Your task to perform on an android device: toggle sleep mode Image 0: 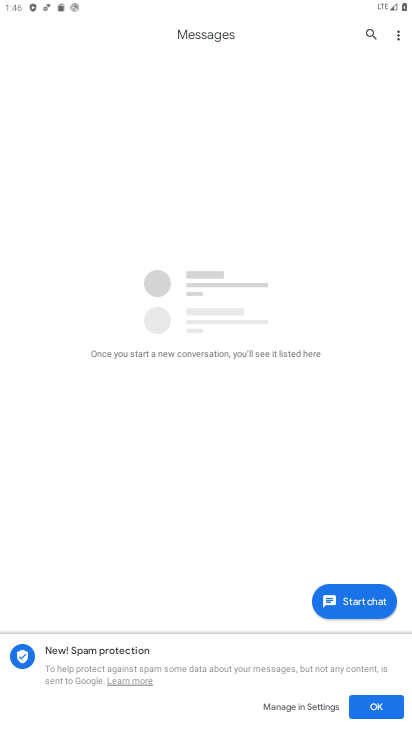
Step 0: press home button
Your task to perform on an android device: toggle sleep mode Image 1: 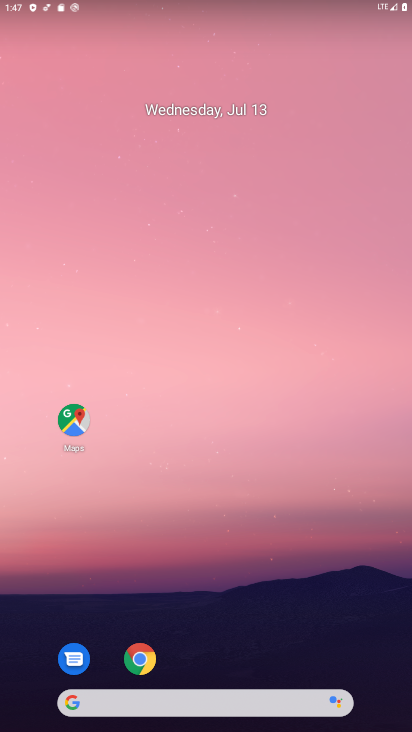
Step 1: drag from (385, 673) to (323, 153)
Your task to perform on an android device: toggle sleep mode Image 2: 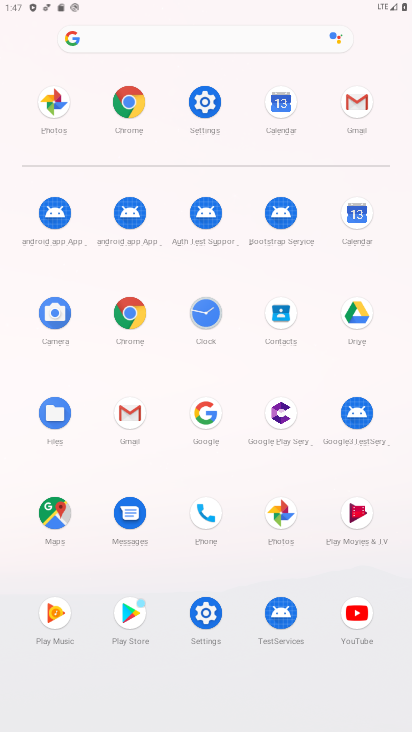
Step 2: click (204, 612)
Your task to perform on an android device: toggle sleep mode Image 3: 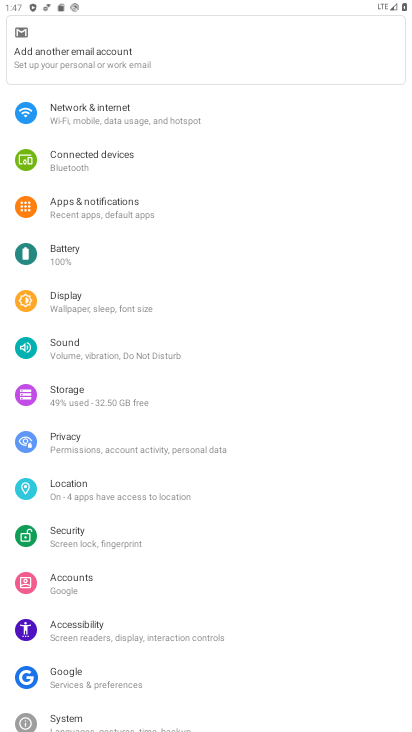
Step 3: click (75, 304)
Your task to perform on an android device: toggle sleep mode Image 4: 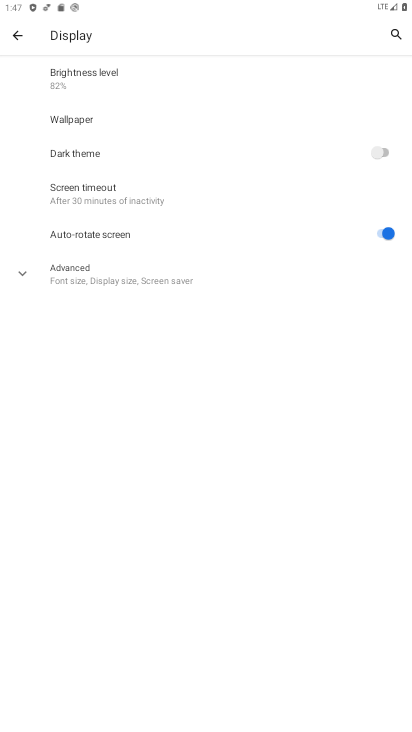
Step 4: click (21, 275)
Your task to perform on an android device: toggle sleep mode Image 5: 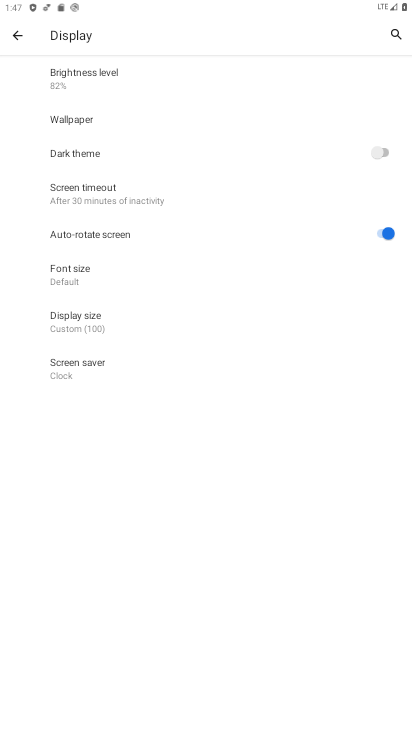
Step 5: task complete